Your task to perform on an android device: turn off airplane mode Image 0: 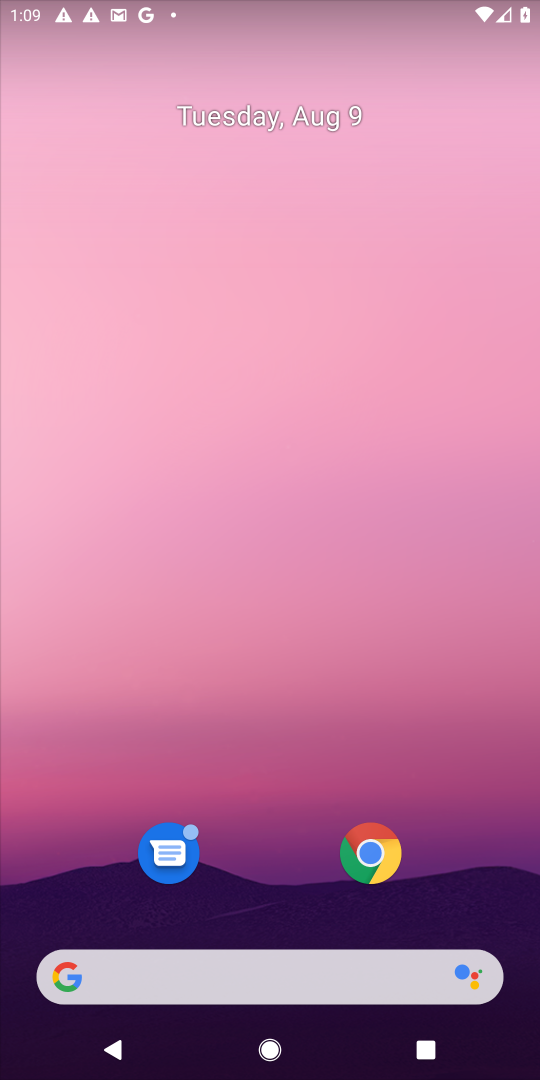
Step 0: drag from (279, 912) to (278, 437)
Your task to perform on an android device: turn off airplane mode Image 1: 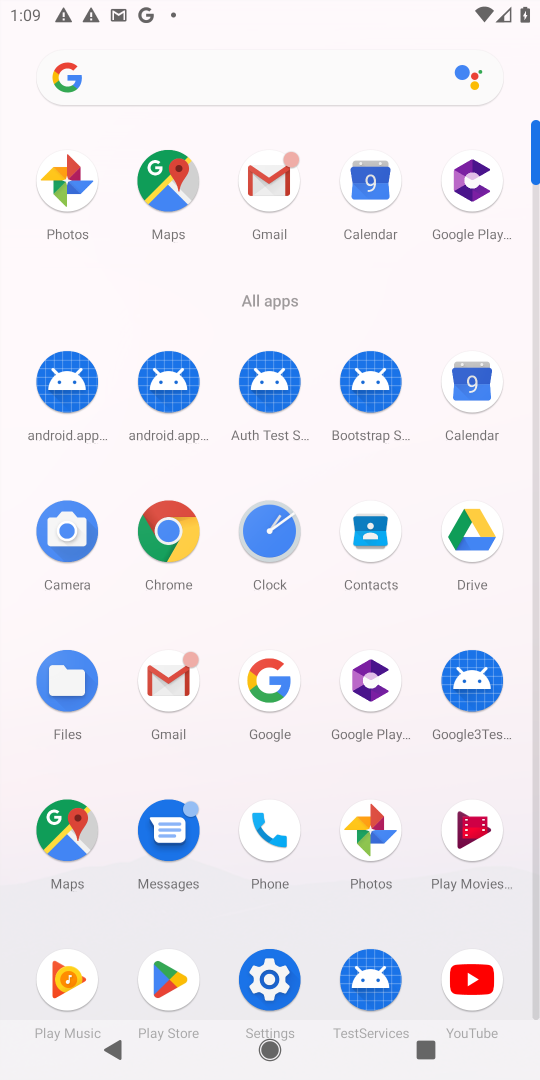
Step 1: task complete